Your task to perform on an android device: Open the web browser Image 0: 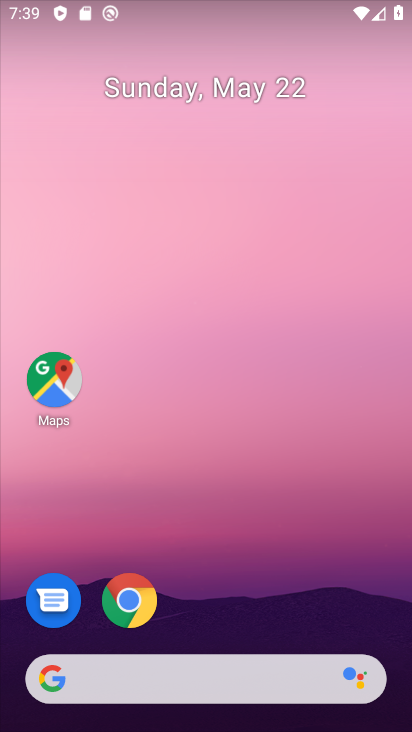
Step 0: click (196, 290)
Your task to perform on an android device: Open the web browser Image 1: 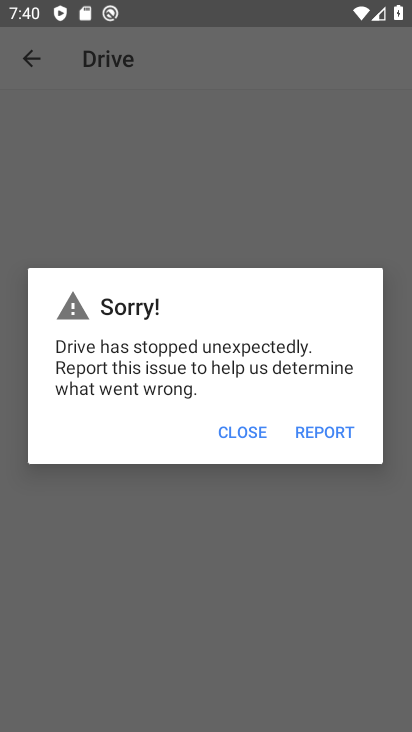
Step 1: press home button
Your task to perform on an android device: Open the web browser Image 2: 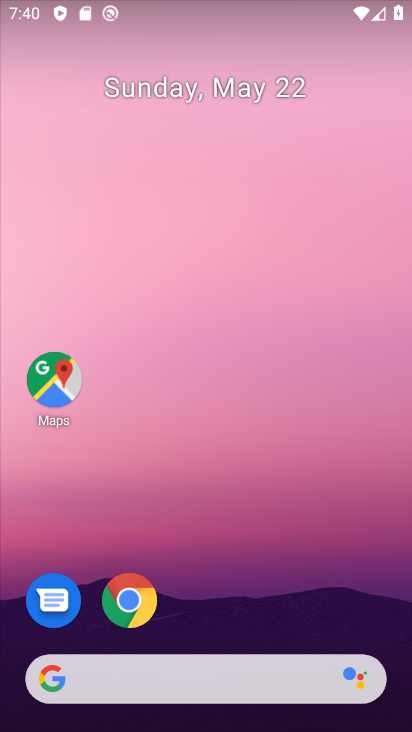
Step 2: click (123, 605)
Your task to perform on an android device: Open the web browser Image 3: 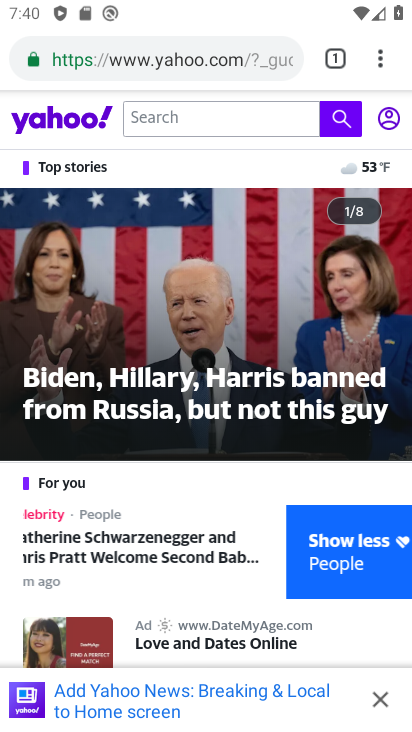
Step 3: task complete